Your task to perform on an android device: Clear all items from cart on costco. Search for logitech g933 on costco, select the first entry, add it to the cart, then select checkout. Image 0: 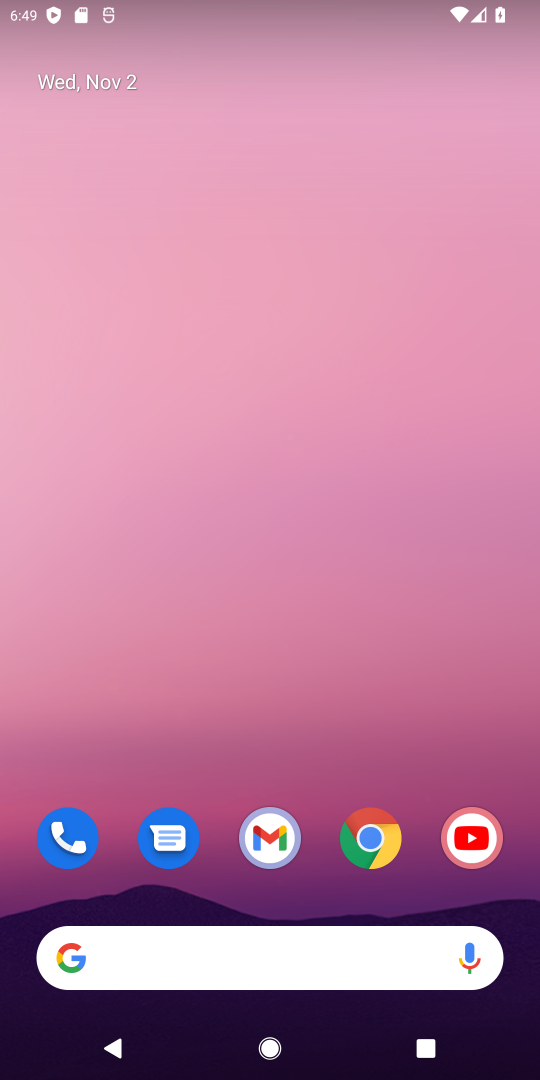
Step 0: click (372, 849)
Your task to perform on an android device: Clear all items from cart on costco. Search for logitech g933 on costco, select the first entry, add it to the cart, then select checkout. Image 1: 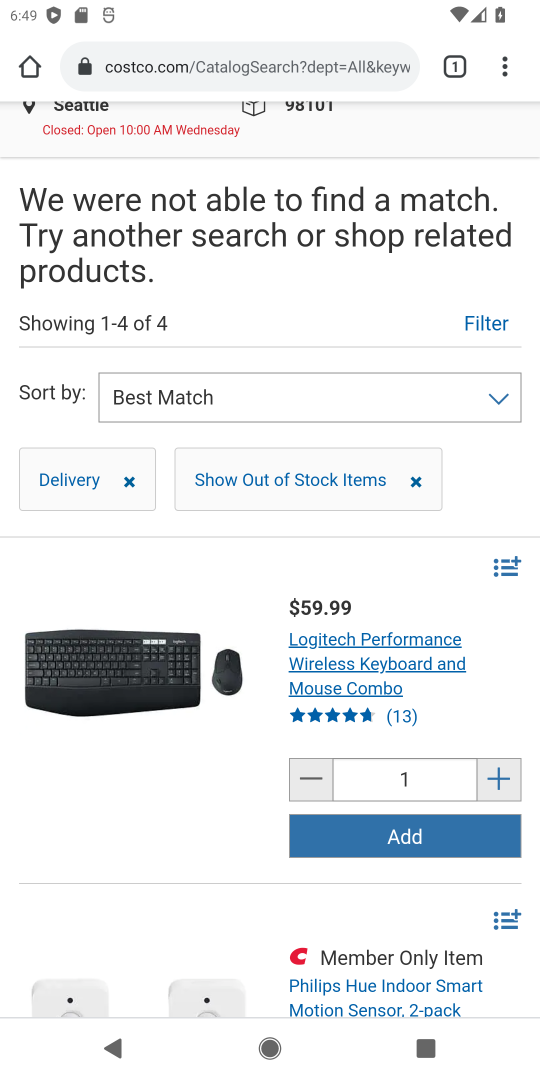
Step 1: click (274, 56)
Your task to perform on an android device: Clear all items from cart on costco. Search for logitech g933 on costco, select the first entry, add it to the cart, then select checkout. Image 2: 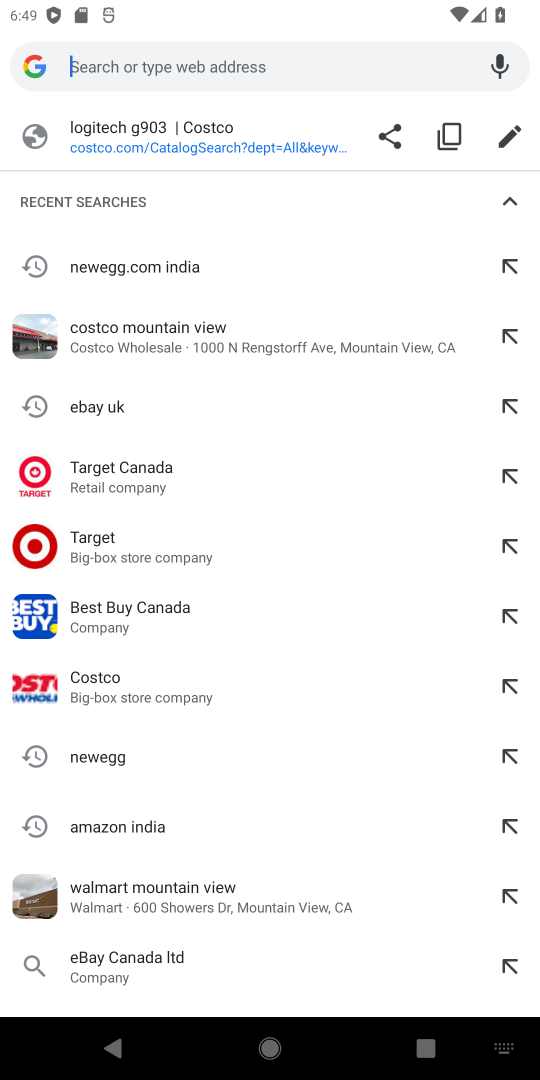
Step 2: type "costco"
Your task to perform on an android device: Clear all items from cart on costco. Search for logitech g933 on costco, select the first entry, add it to the cart, then select checkout. Image 3: 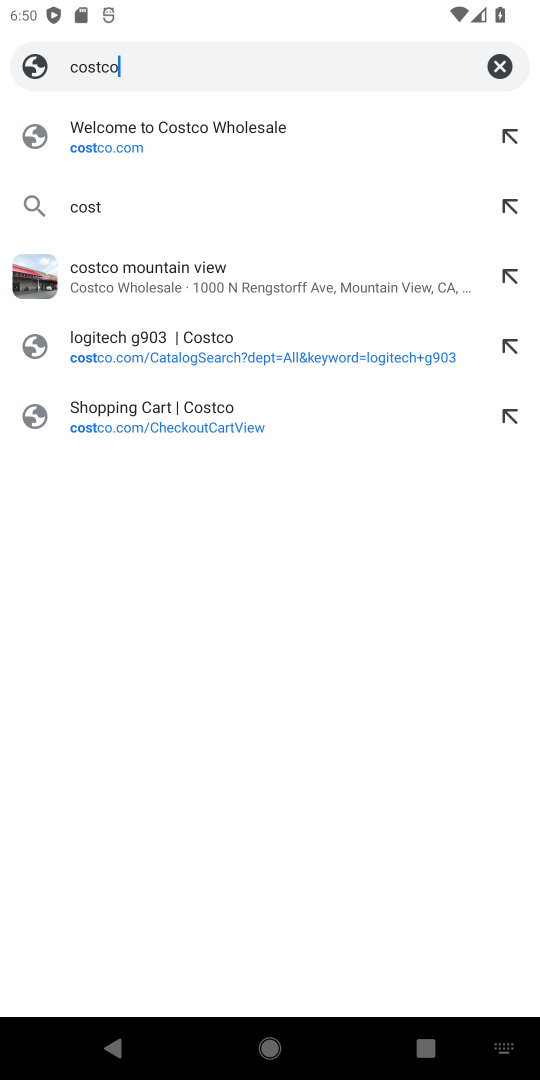
Step 3: type ""
Your task to perform on an android device: Clear all items from cart on costco. Search for logitech g933 on costco, select the first entry, add it to the cart, then select checkout. Image 4: 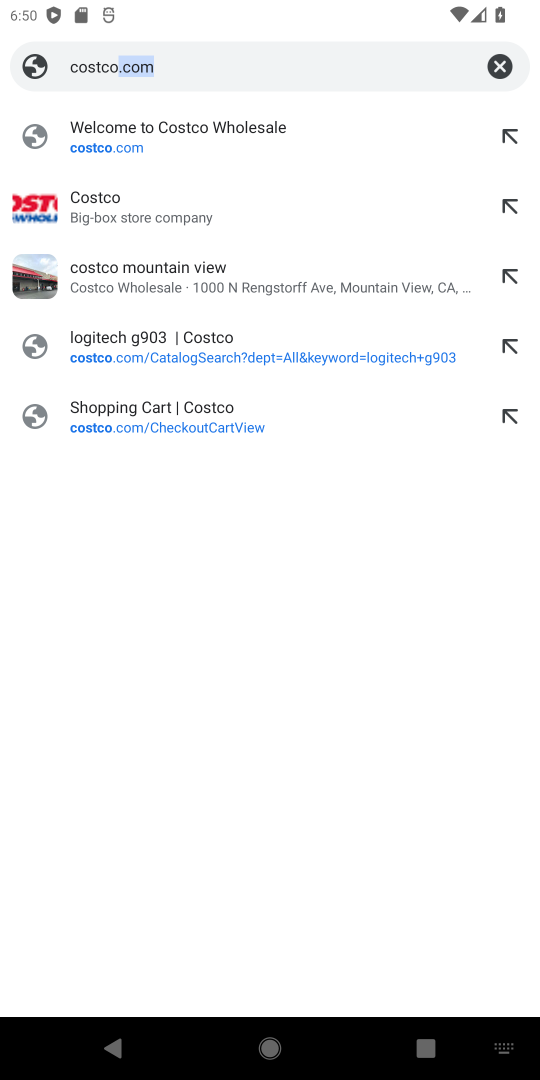
Step 4: press enter
Your task to perform on an android device: Clear all items from cart on costco. Search for logitech g933 on costco, select the first entry, add it to the cart, then select checkout. Image 5: 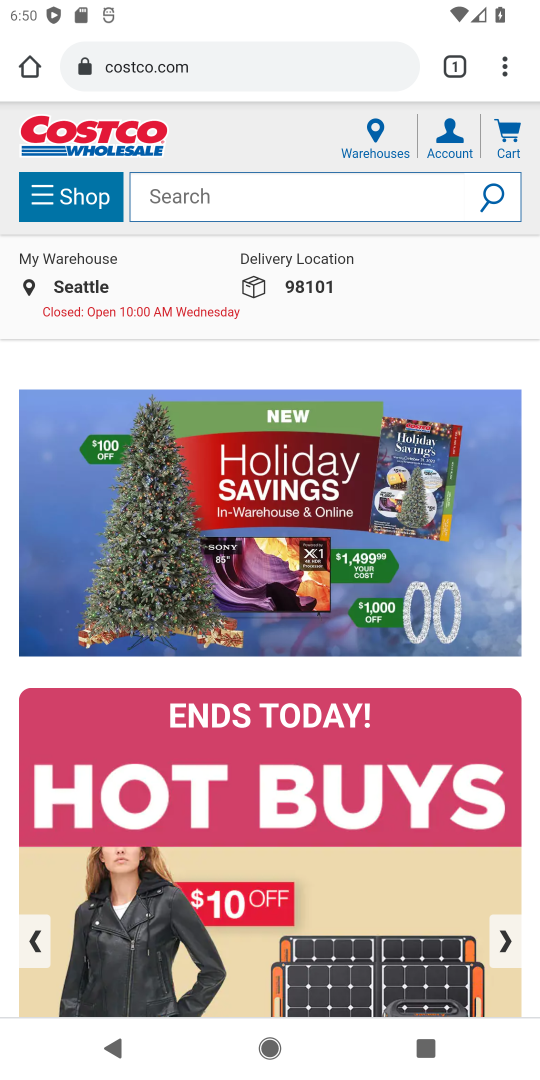
Step 5: click (253, 190)
Your task to perform on an android device: Clear all items from cart on costco. Search for logitech g933 on costco, select the first entry, add it to the cart, then select checkout. Image 6: 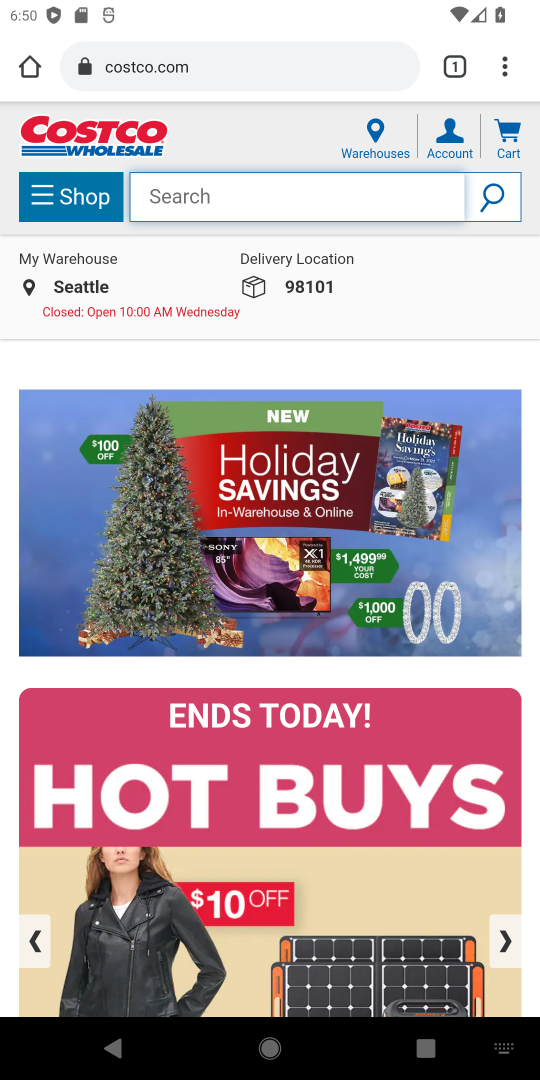
Step 6: type "logitech g933"
Your task to perform on an android device: Clear all items from cart on costco. Search for logitech g933 on costco, select the first entry, add it to the cart, then select checkout. Image 7: 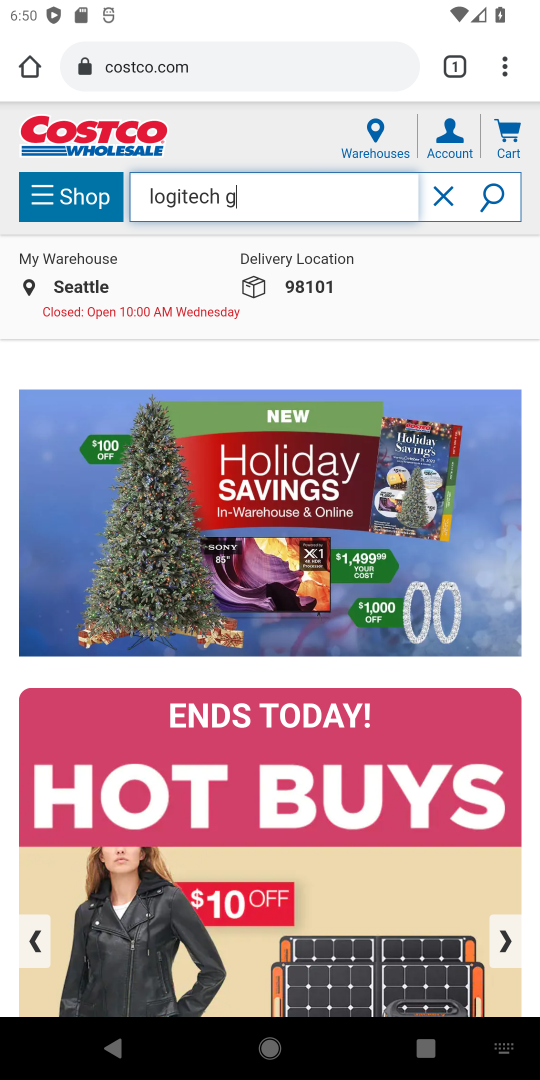
Step 7: type ""
Your task to perform on an android device: Clear all items from cart on costco. Search for logitech g933 on costco, select the first entry, add it to the cart, then select checkout. Image 8: 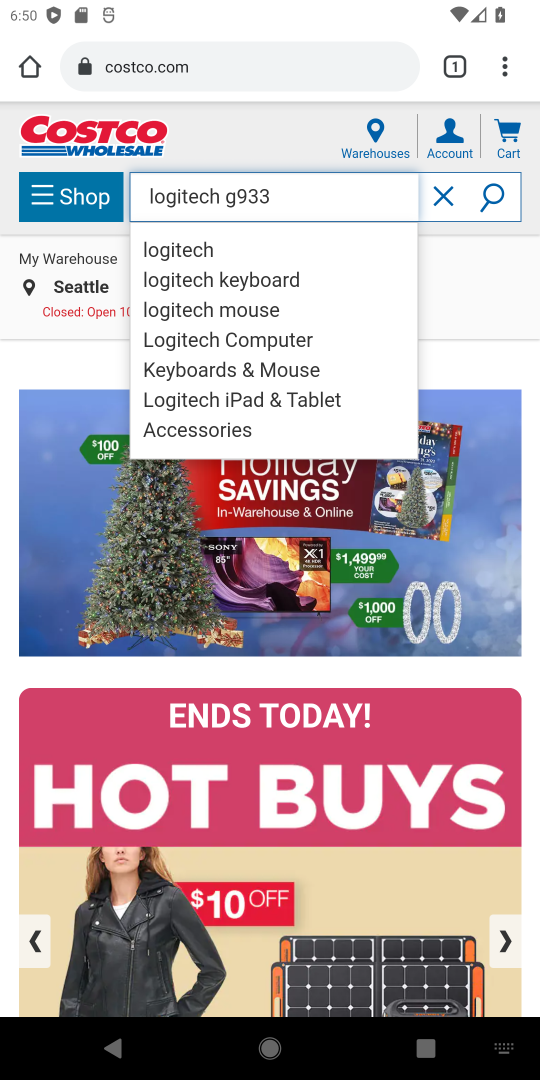
Step 8: click (513, 142)
Your task to perform on an android device: Clear all items from cart on costco. Search for logitech g933 on costco, select the first entry, add it to the cart, then select checkout. Image 9: 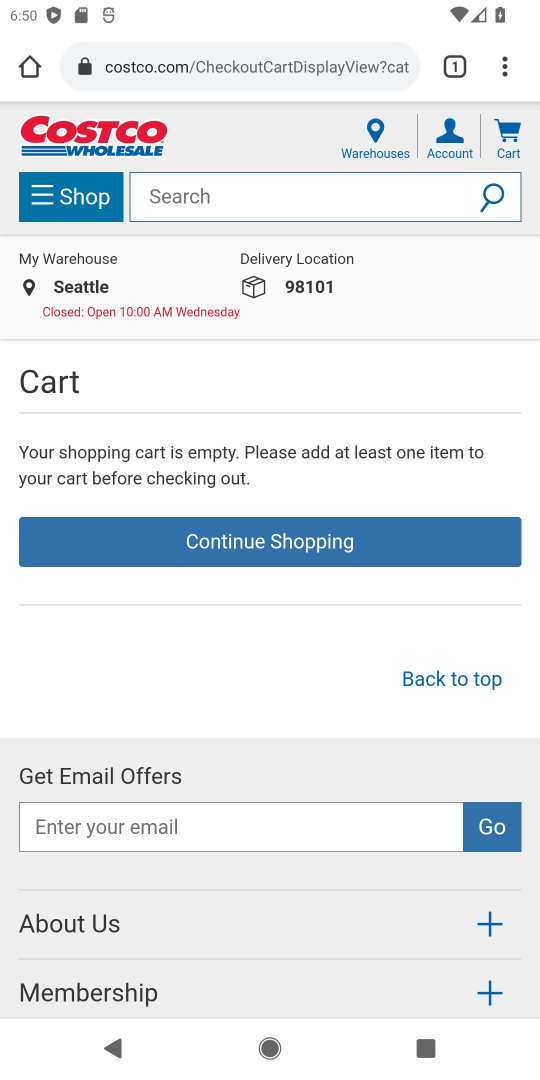
Step 9: click (203, 194)
Your task to perform on an android device: Clear all items from cart on costco. Search for logitech g933 on costco, select the first entry, add it to the cart, then select checkout. Image 10: 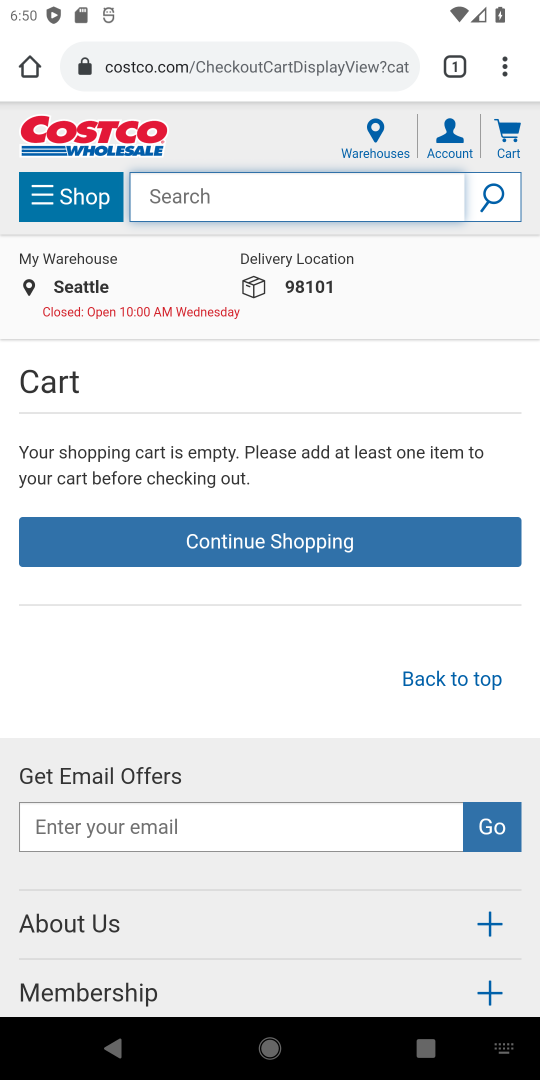
Step 10: type "logitech g933"
Your task to perform on an android device: Clear all items from cart on costco. Search for logitech g933 on costco, select the first entry, add it to the cart, then select checkout. Image 11: 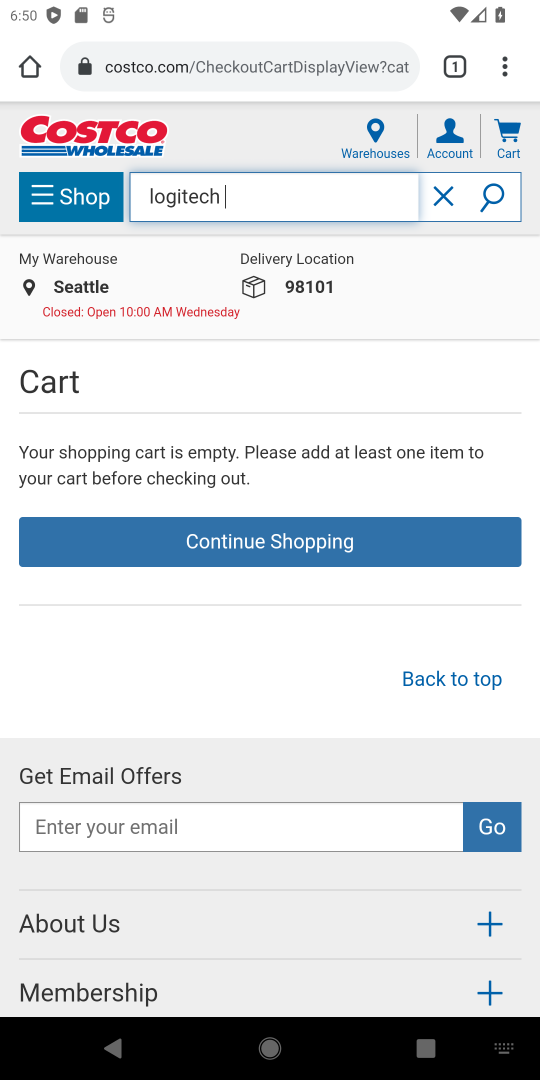
Step 11: type ""
Your task to perform on an android device: Clear all items from cart on costco. Search for logitech g933 on costco, select the first entry, add it to the cart, then select checkout. Image 12: 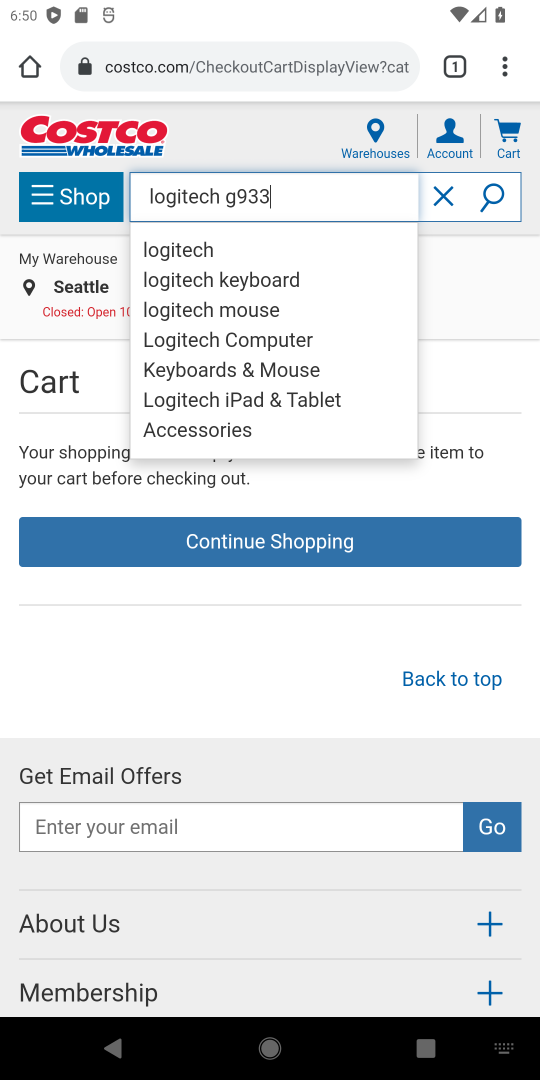
Step 12: press enter
Your task to perform on an android device: Clear all items from cart on costco. Search for logitech g933 on costco, select the first entry, add it to the cart, then select checkout. Image 13: 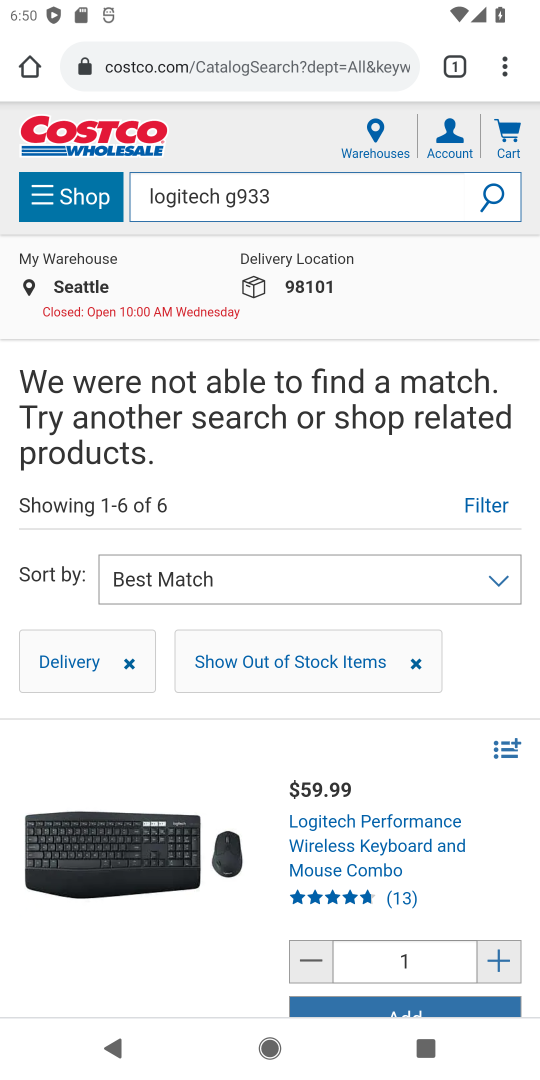
Step 13: task complete